Your task to perform on an android device: Is it going to rain this weekend? Image 0: 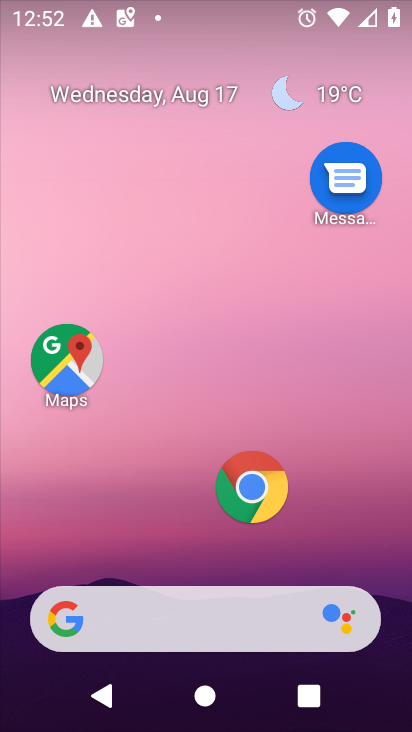
Step 0: drag from (146, 567) to (185, 121)
Your task to perform on an android device: Is it going to rain this weekend? Image 1: 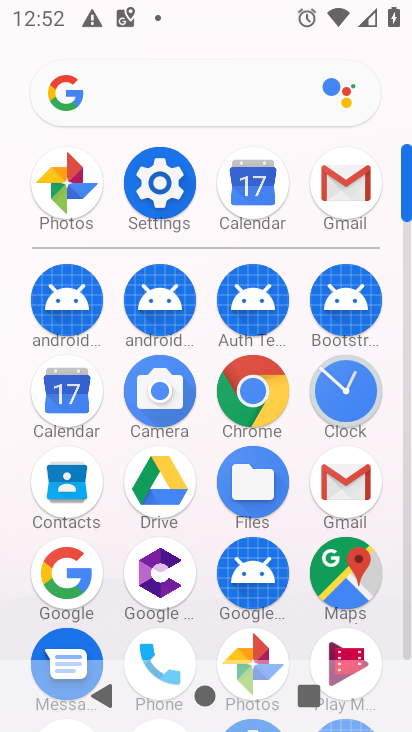
Step 1: click (158, 103)
Your task to perform on an android device: Is it going to rain this weekend? Image 2: 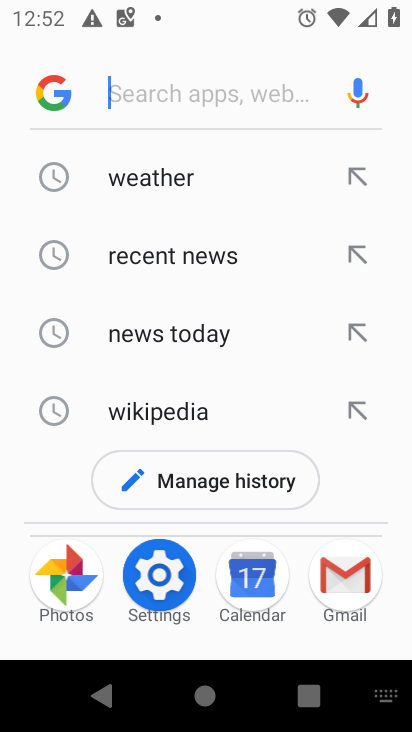
Step 2: click (150, 178)
Your task to perform on an android device: Is it going to rain this weekend? Image 3: 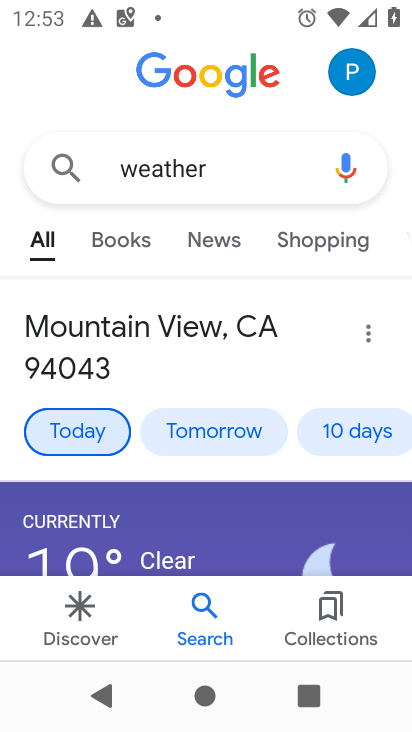
Step 3: click (346, 422)
Your task to perform on an android device: Is it going to rain this weekend? Image 4: 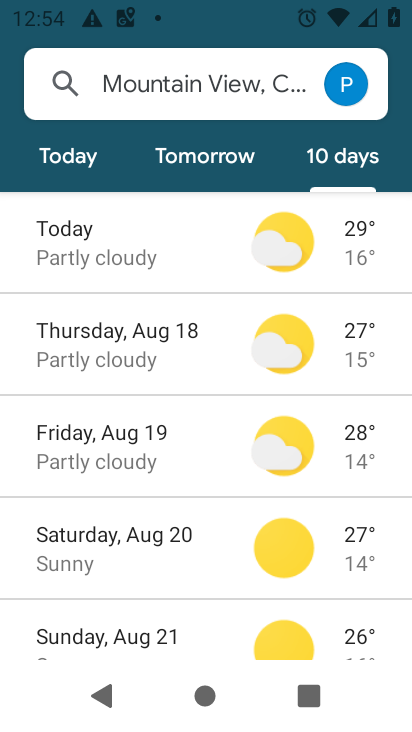
Step 4: click (215, 550)
Your task to perform on an android device: Is it going to rain this weekend? Image 5: 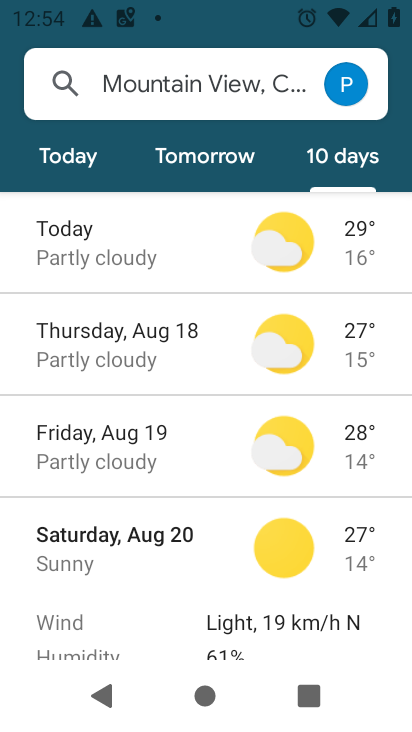
Step 5: task complete